Your task to perform on an android device: set an alarm Image 0: 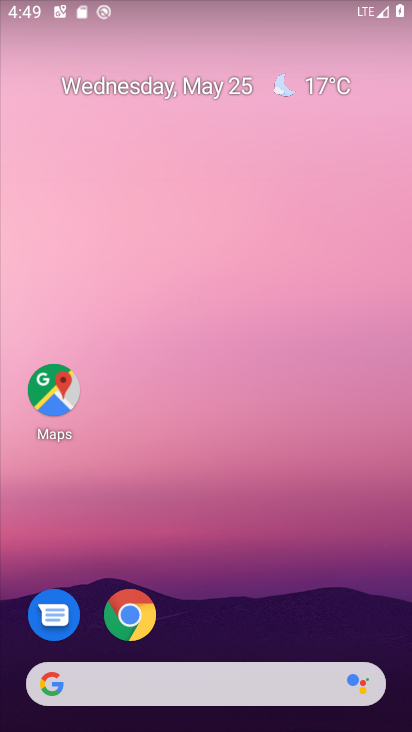
Step 0: drag from (299, 332) to (235, 10)
Your task to perform on an android device: set an alarm Image 1: 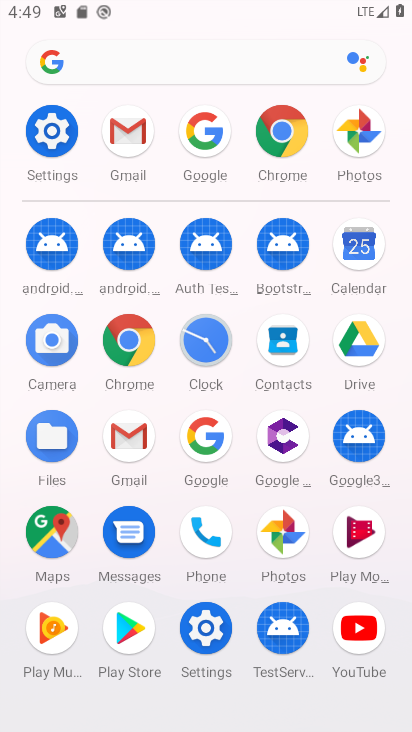
Step 1: click (203, 342)
Your task to perform on an android device: set an alarm Image 2: 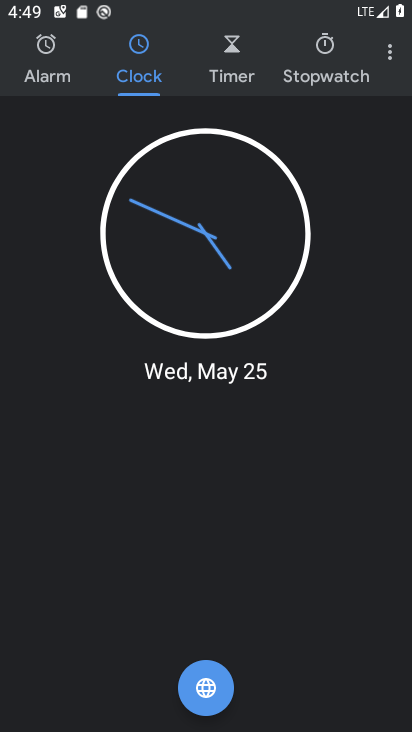
Step 2: click (44, 50)
Your task to perform on an android device: set an alarm Image 3: 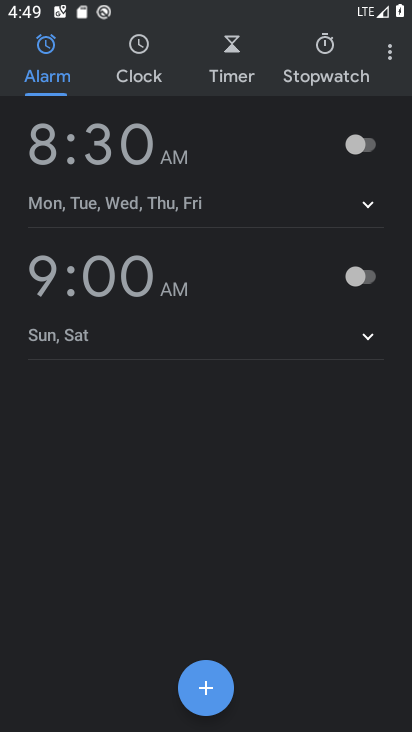
Step 3: click (359, 129)
Your task to perform on an android device: set an alarm Image 4: 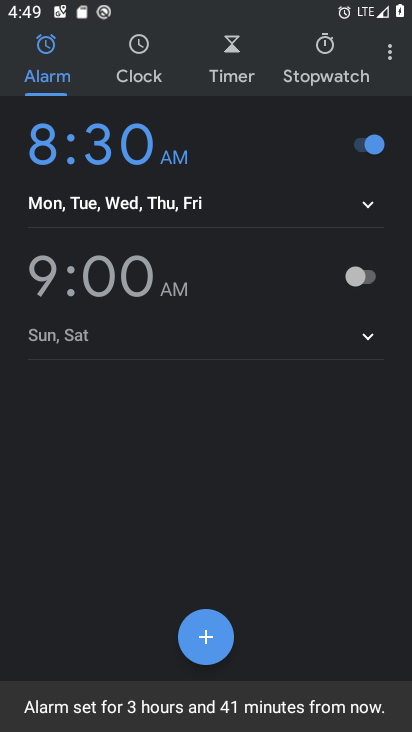
Step 4: task complete